Your task to perform on an android device: What's the weather? Image 0: 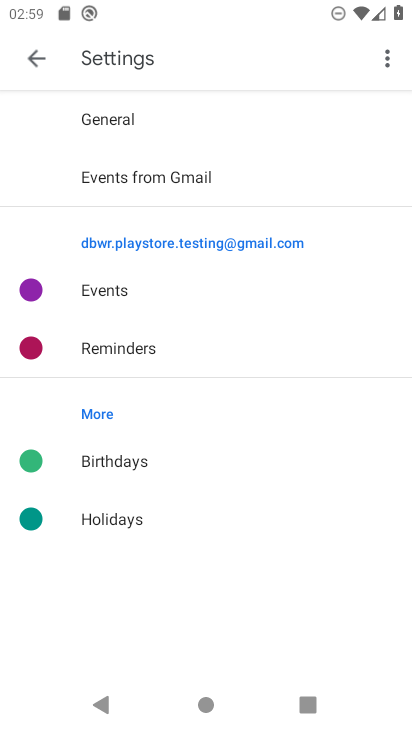
Step 0: press home button
Your task to perform on an android device: What's the weather? Image 1: 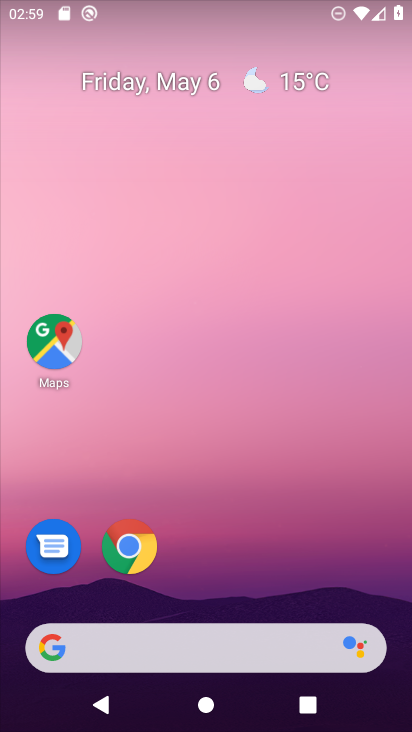
Step 1: click (296, 79)
Your task to perform on an android device: What's the weather? Image 2: 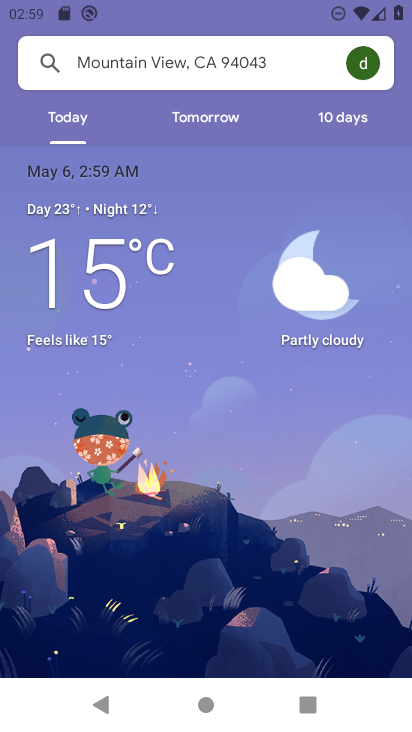
Step 2: task complete